Your task to perform on an android device: Clear the shopping cart on ebay.com. Search for lenovo thinkpad on ebay.com, select the first entry, and add it to the cart. Image 0: 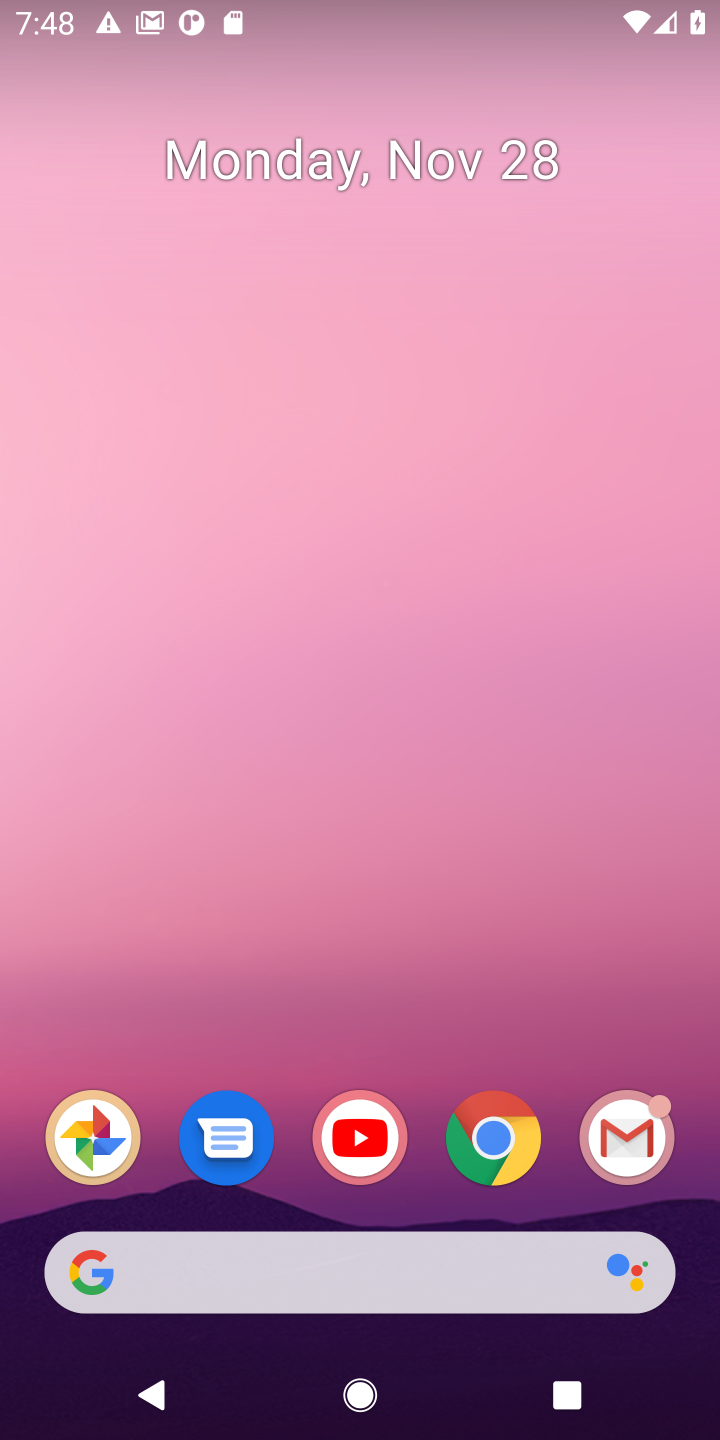
Step 0: click (515, 1134)
Your task to perform on an android device: Clear the shopping cart on ebay.com. Search for lenovo thinkpad on ebay.com, select the first entry, and add it to the cart. Image 1: 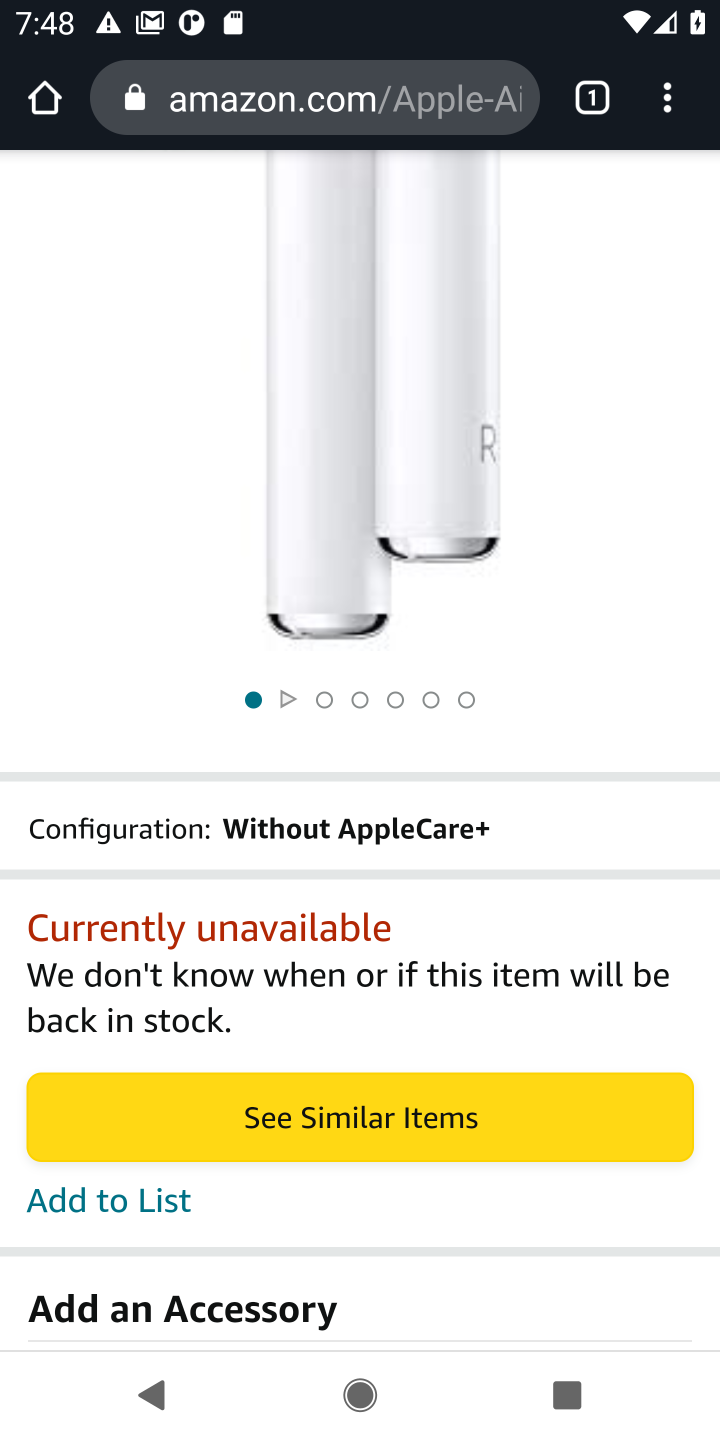
Step 1: click (293, 106)
Your task to perform on an android device: Clear the shopping cart on ebay.com. Search for lenovo thinkpad on ebay.com, select the first entry, and add it to the cart. Image 2: 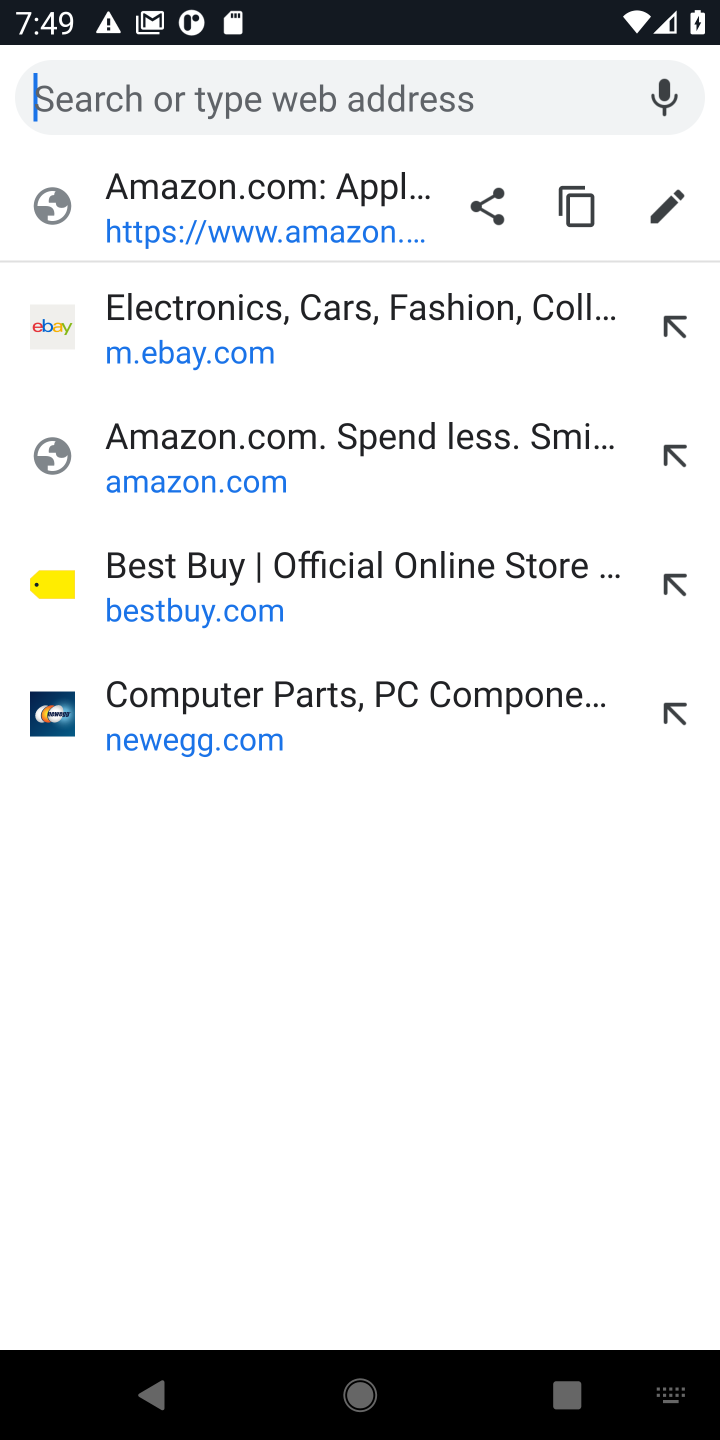
Step 2: click (146, 327)
Your task to perform on an android device: Clear the shopping cart on ebay.com. Search for lenovo thinkpad on ebay.com, select the first entry, and add it to the cart. Image 3: 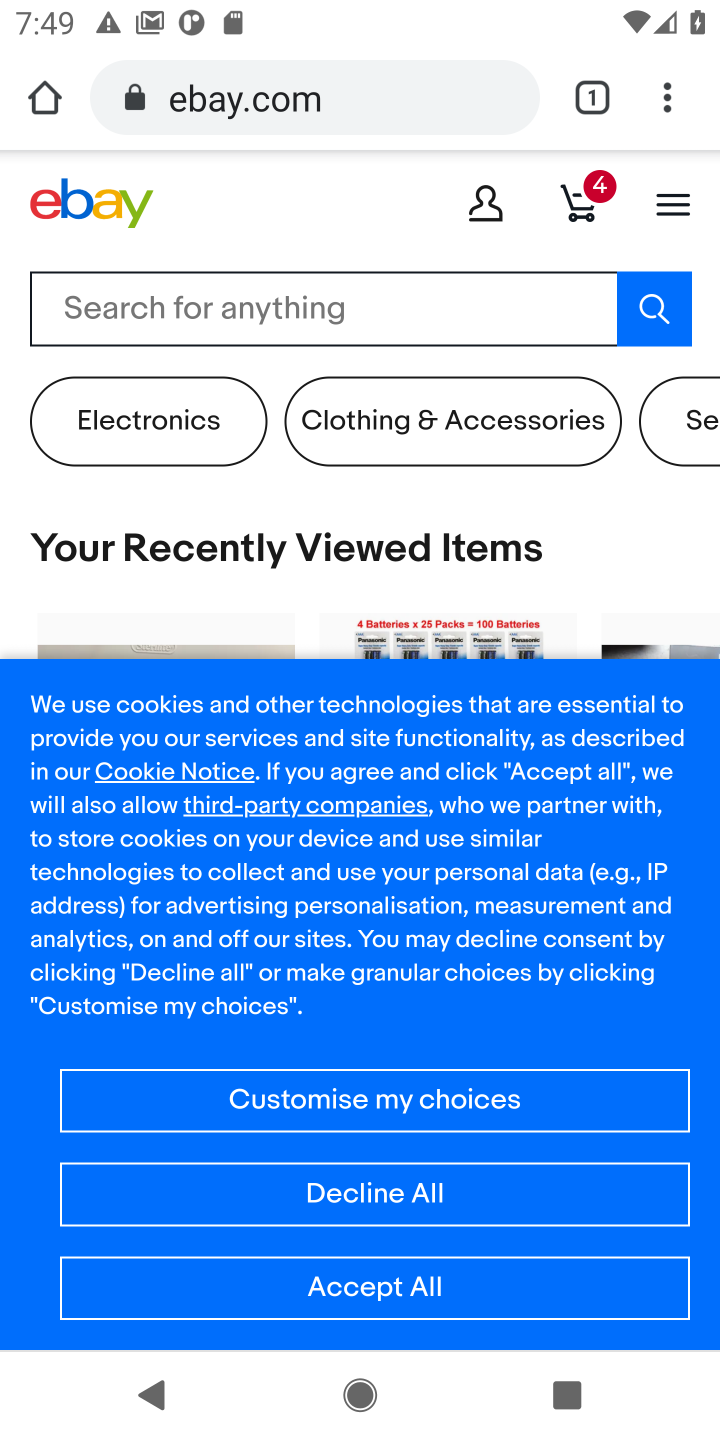
Step 3: click (577, 205)
Your task to perform on an android device: Clear the shopping cart on ebay.com. Search for lenovo thinkpad on ebay.com, select the first entry, and add it to the cart. Image 4: 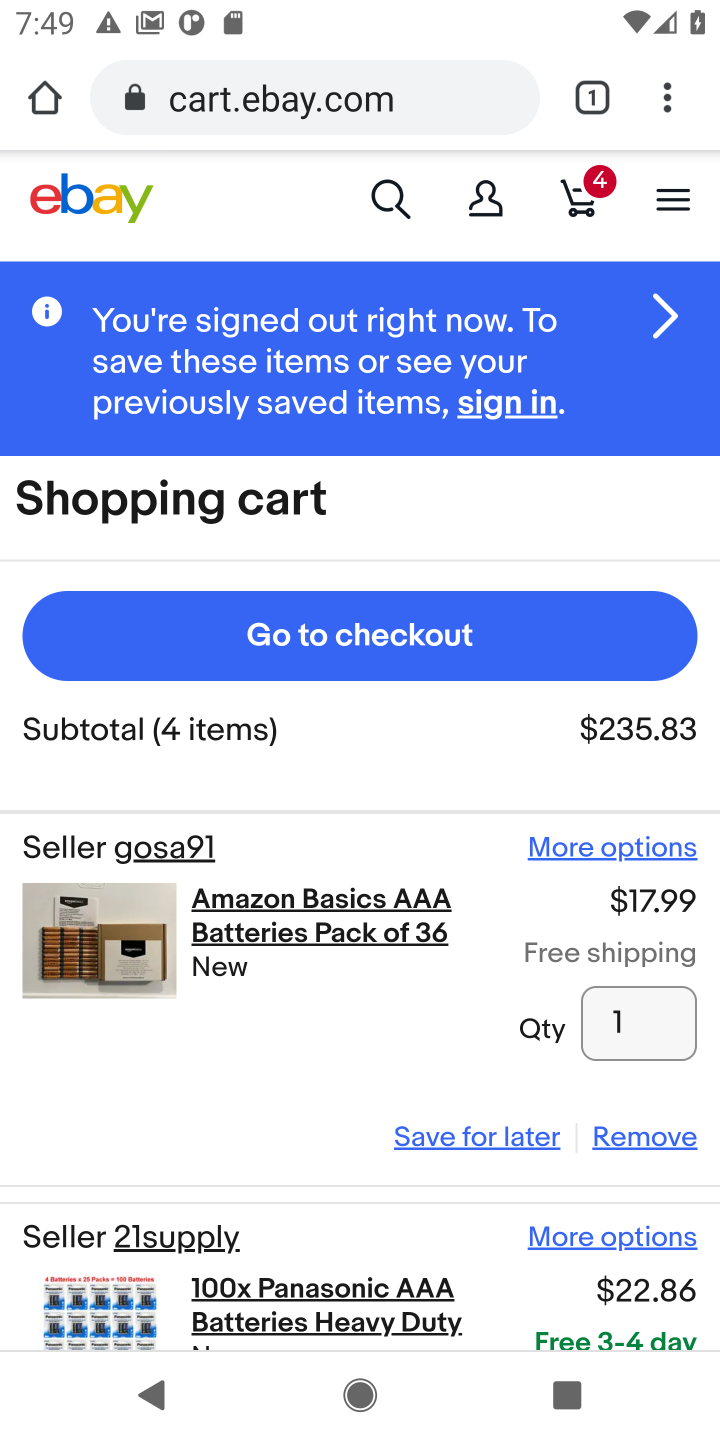
Step 4: click (620, 1139)
Your task to perform on an android device: Clear the shopping cart on ebay.com. Search for lenovo thinkpad on ebay.com, select the first entry, and add it to the cart. Image 5: 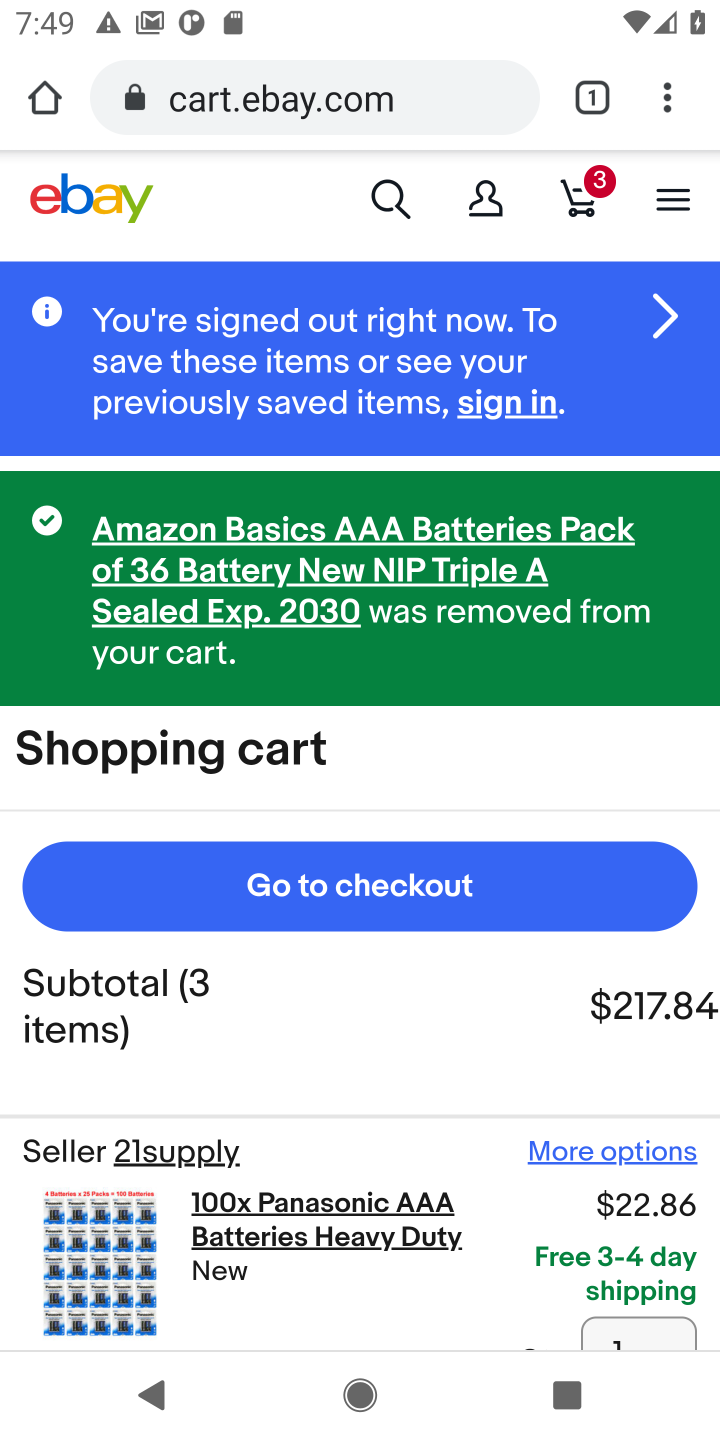
Step 5: drag from (529, 1192) to (485, 829)
Your task to perform on an android device: Clear the shopping cart on ebay.com. Search for lenovo thinkpad on ebay.com, select the first entry, and add it to the cart. Image 6: 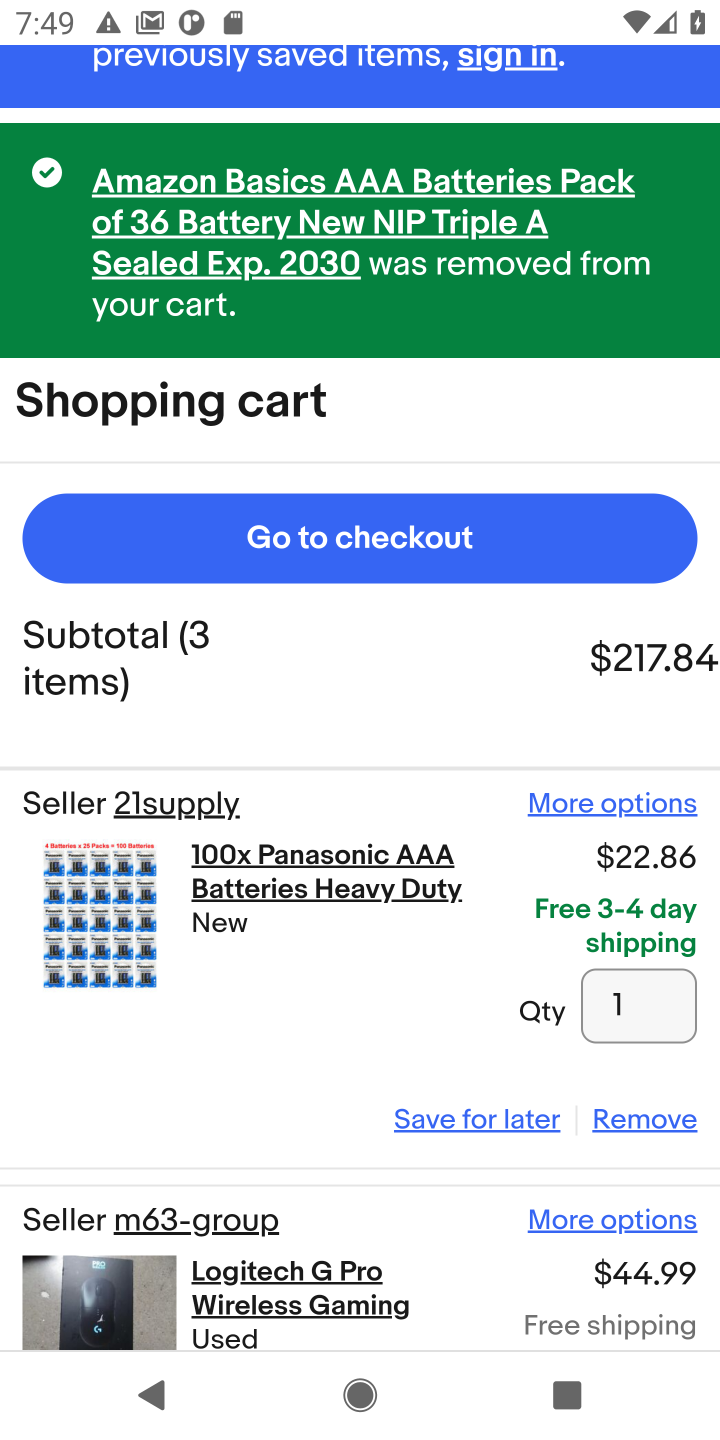
Step 6: click (619, 1127)
Your task to perform on an android device: Clear the shopping cart on ebay.com. Search for lenovo thinkpad on ebay.com, select the first entry, and add it to the cart. Image 7: 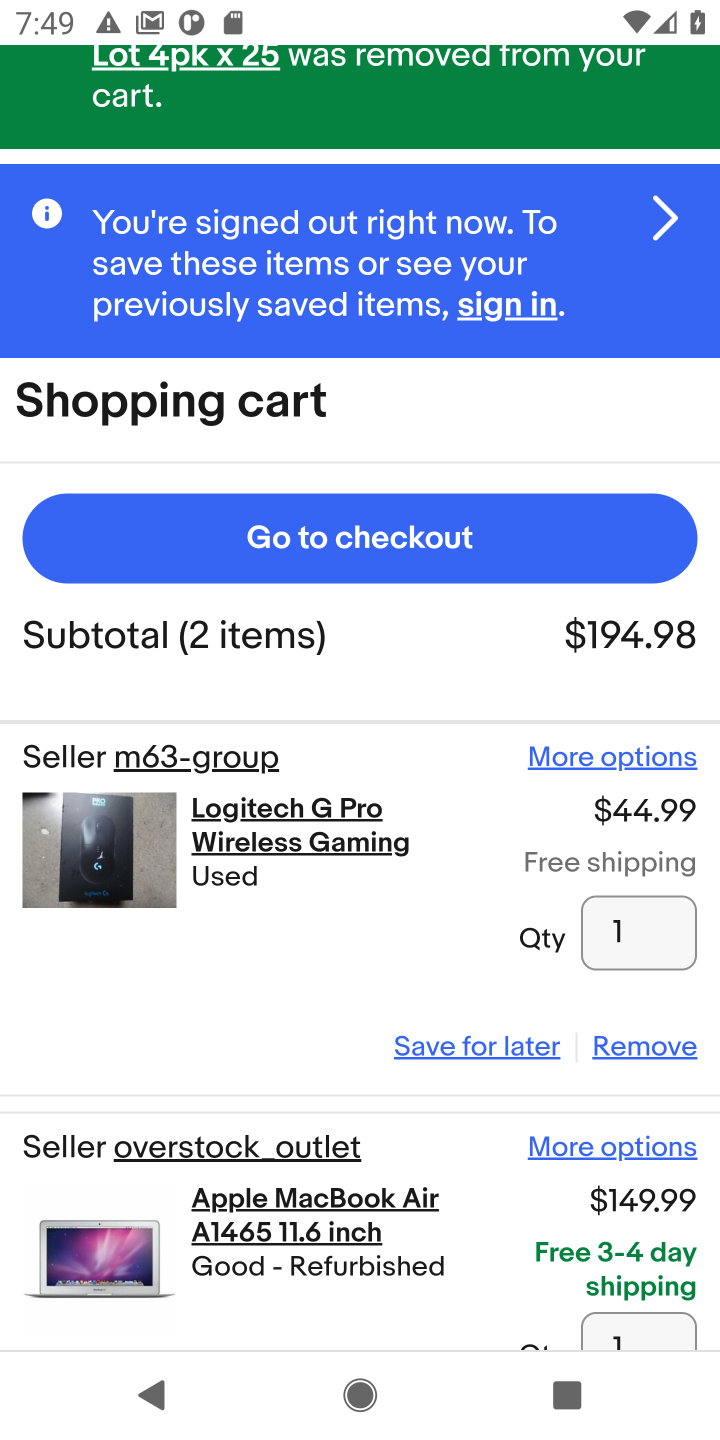
Step 7: click (605, 1066)
Your task to perform on an android device: Clear the shopping cart on ebay.com. Search for lenovo thinkpad on ebay.com, select the first entry, and add it to the cart. Image 8: 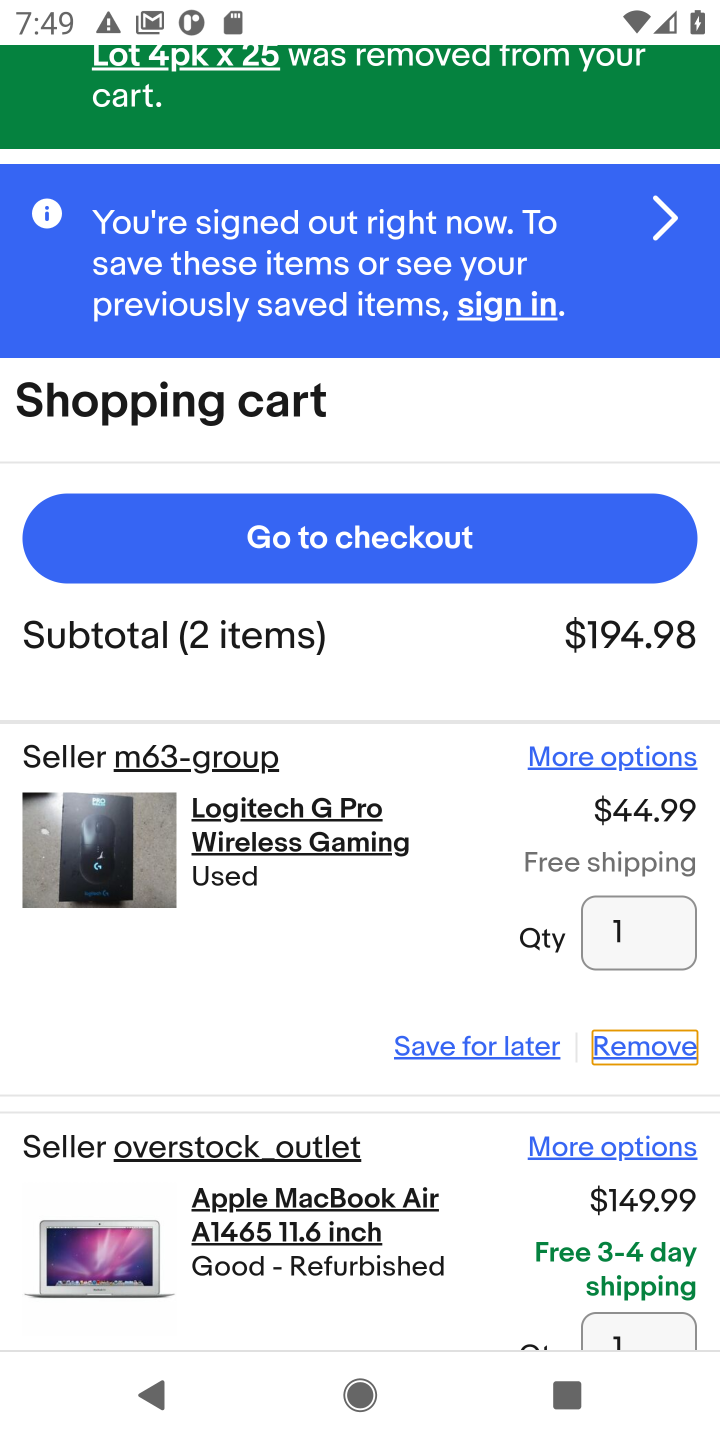
Step 8: click (624, 1058)
Your task to perform on an android device: Clear the shopping cart on ebay.com. Search for lenovo thinkpad on ebay.com, select the first entry, and add it to the cart. Image 9: 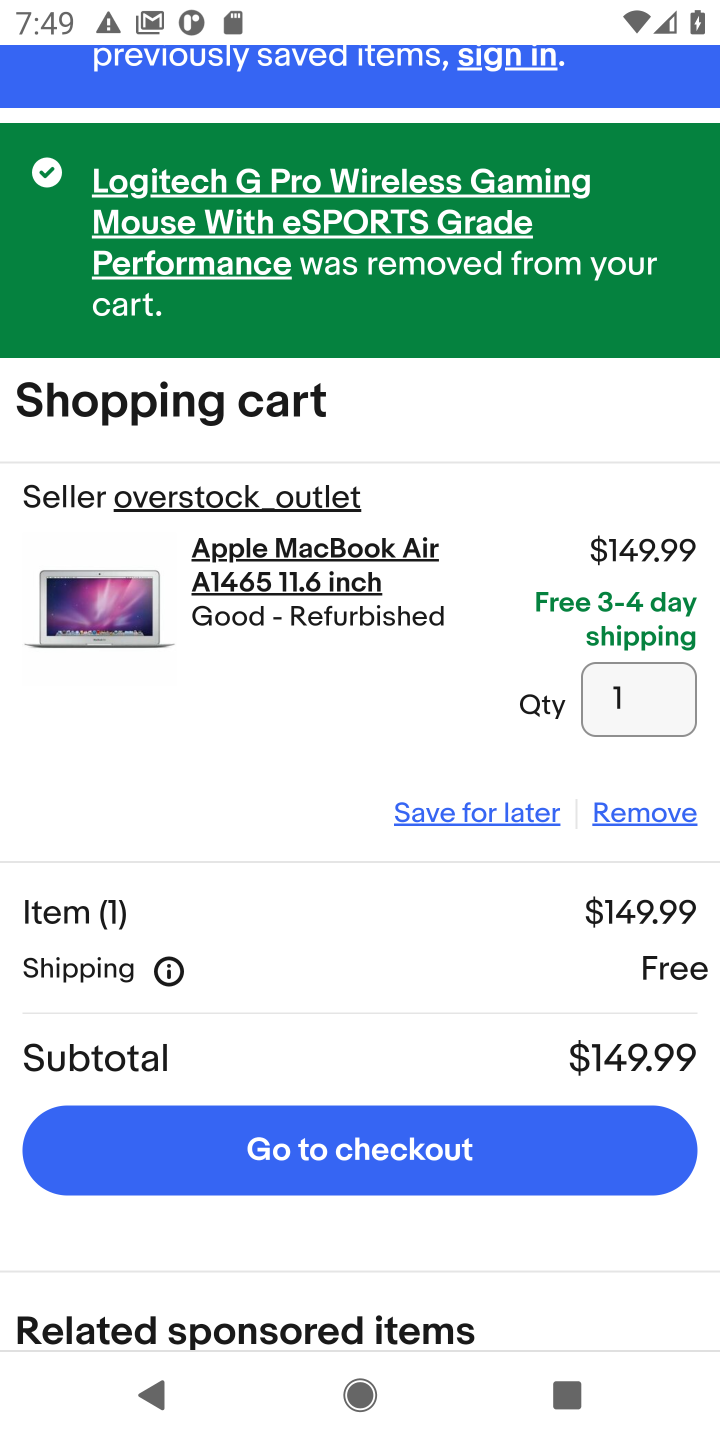
Step 9: click (634, 819)
Your task to perform on an android device: Clear the shopping cart on ebay.com. Search for lenovo thinkpad on ebay.com, select the first entry, and add it to the cart. Image 10: 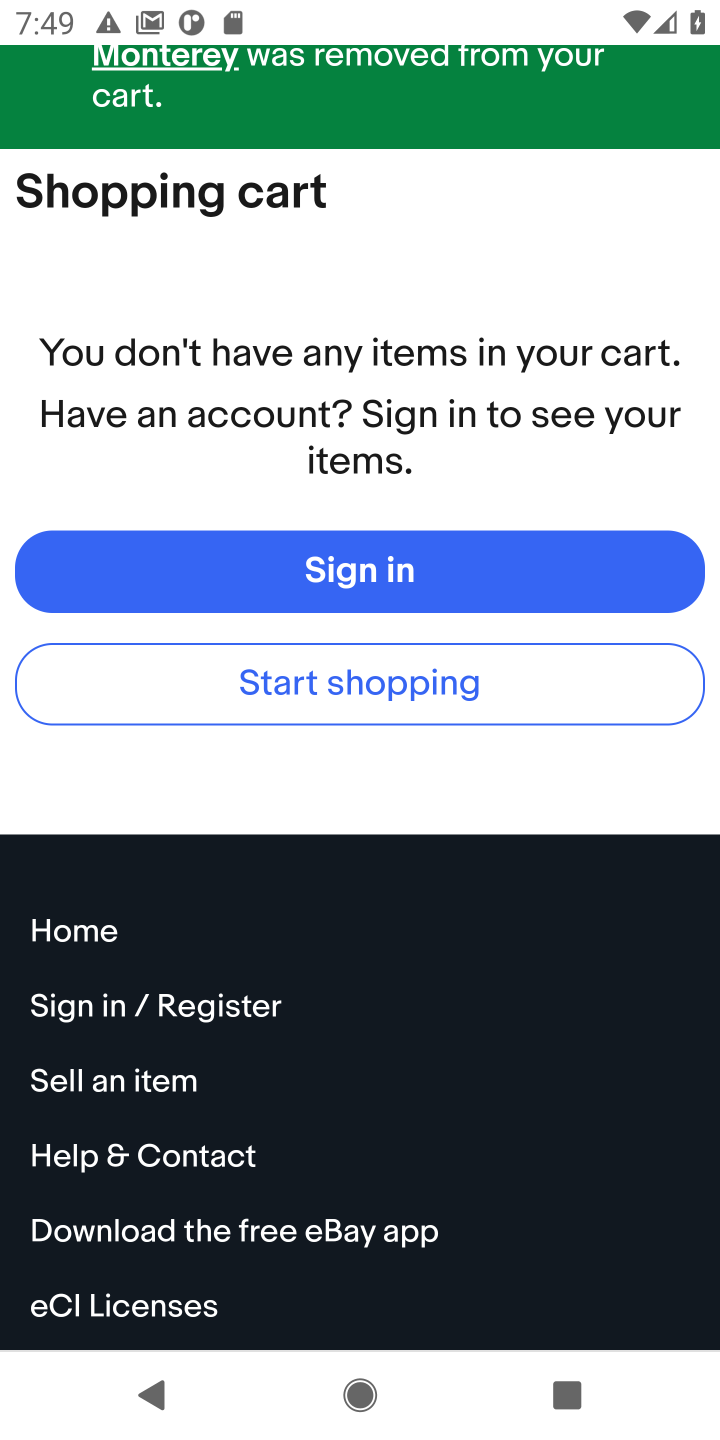
Step 10: drag from (492, 258) to (503, 693)
Your task to perform on an android device: Clear the shopping cart on ebay.com. Search for lenovo thinkpad on ebay.com, select the first entry, and add it to the cart. Image 11: 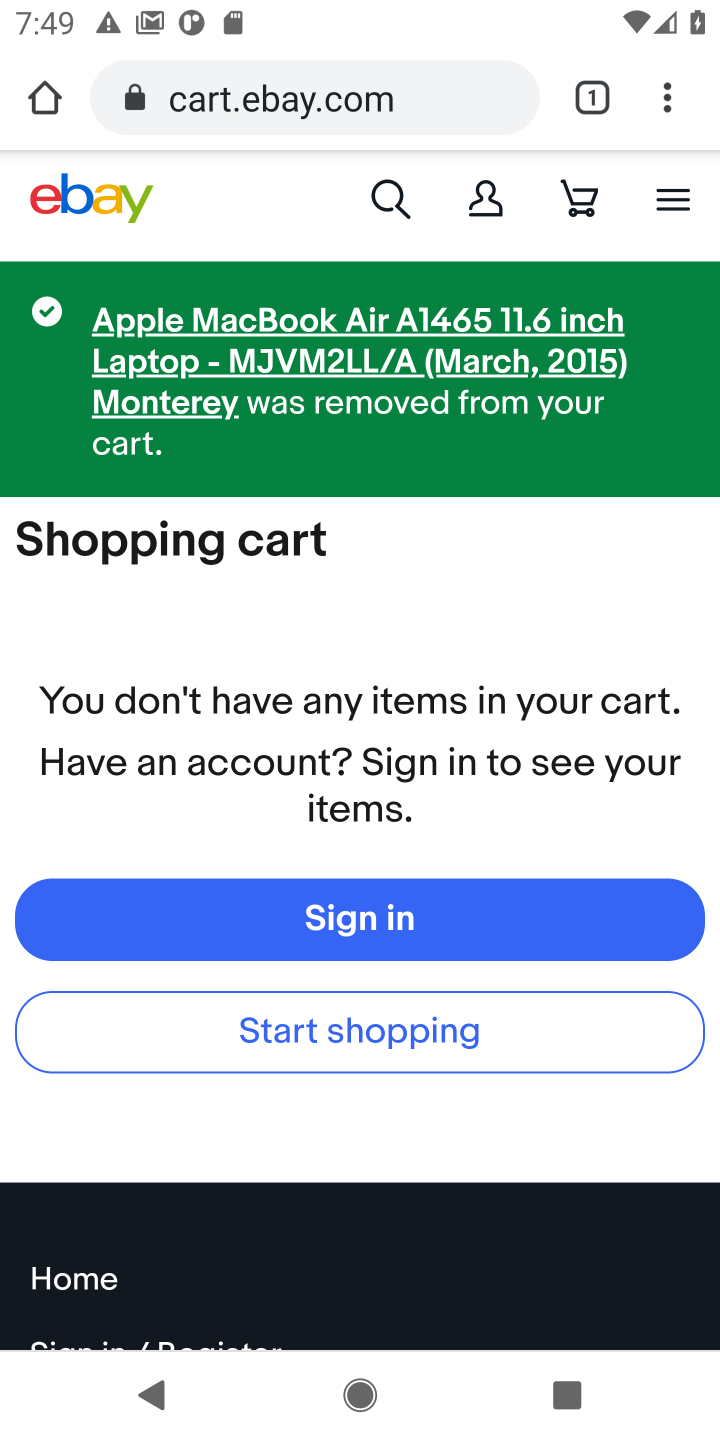
Step 11: click (394, 201)
Your task to perform on an android device: Clear the shopping cart on ebay.com. Search for lenovo thinkpad on ebay.com, select the first entry, and add it to the cart. Image 12: 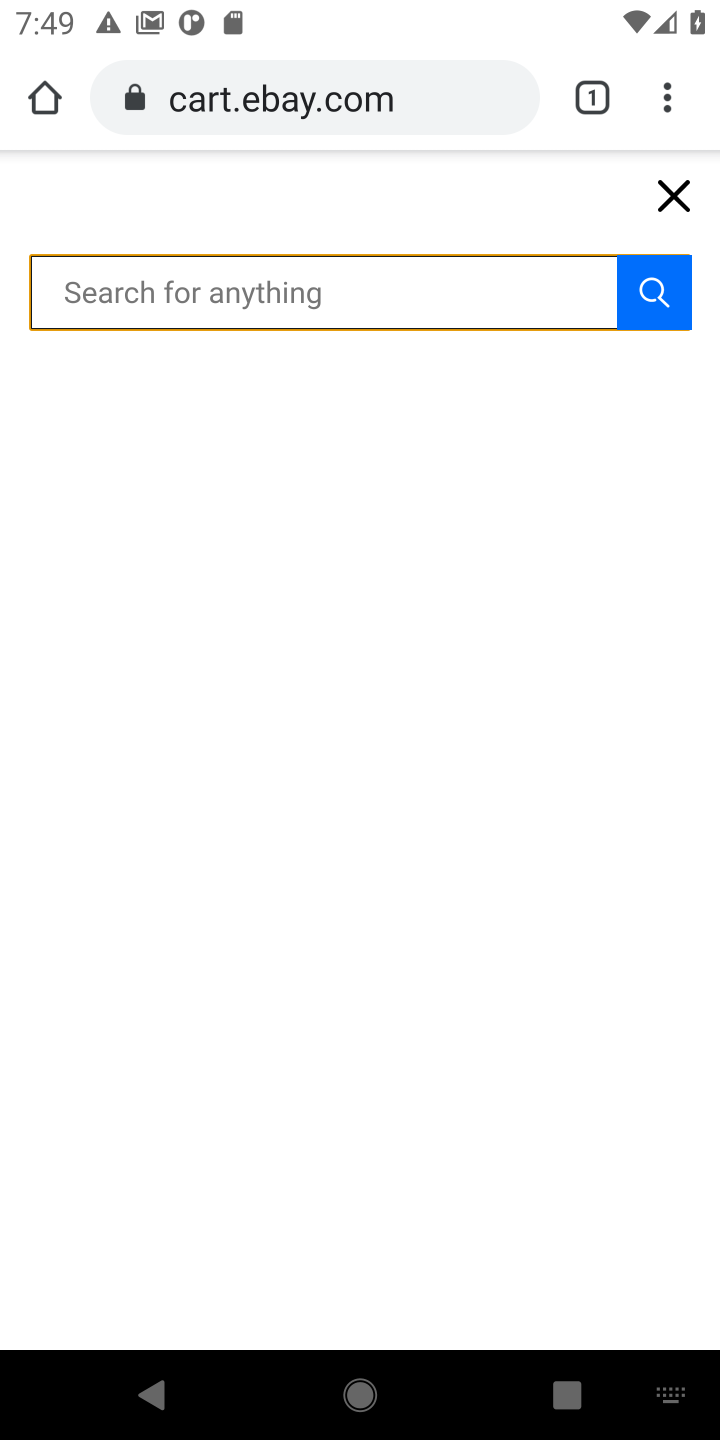
Step 12: type " lenovo thinkpad "
Your task to perform on an android device: Clear the shopping cart on ebay.com. Search for lenovo thinkpad on ebay.com, select the first entry, and add it to the cart. Image 13: 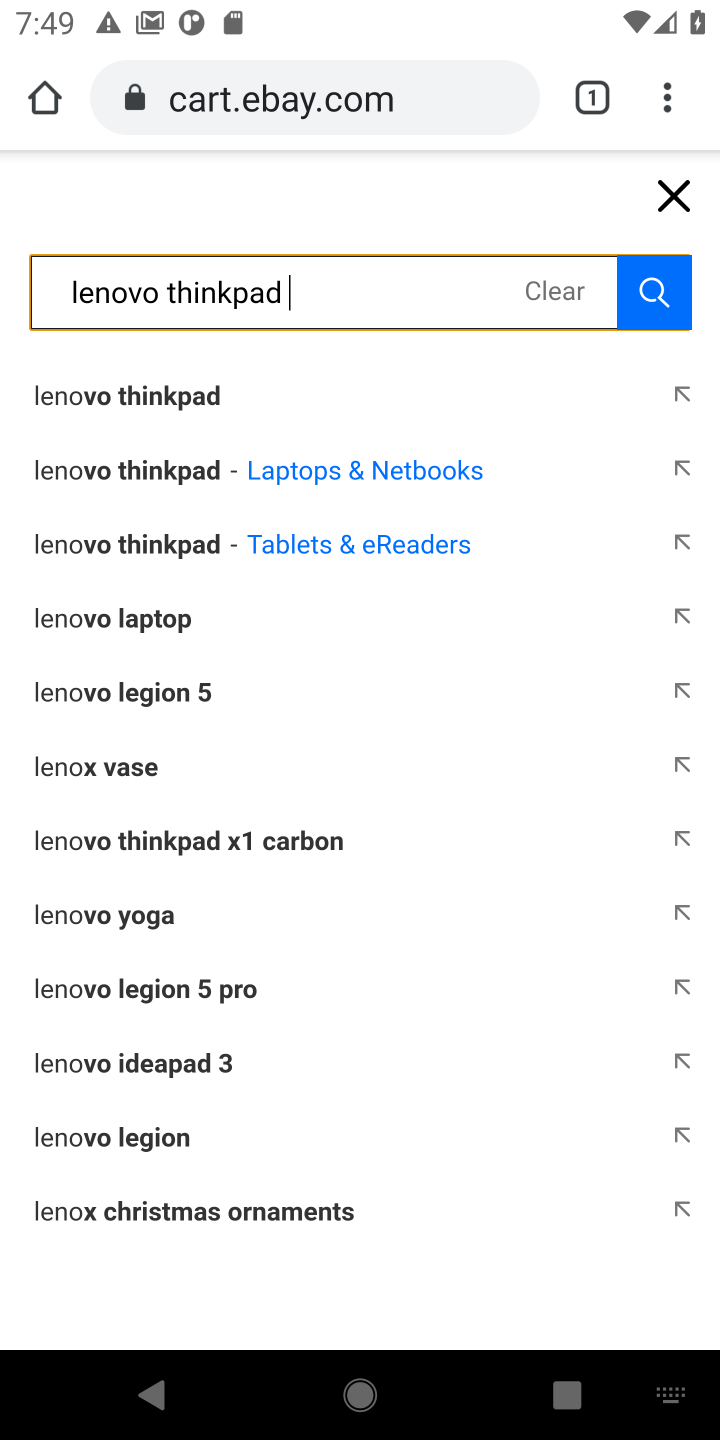
Step 13: click (121, 408)
Your task to perform on an android device: Clear the shopping cart on ebay.com. Search for lenovo thinkpad on ebay.com, select the first entry, and add it to the cart. Image 14: 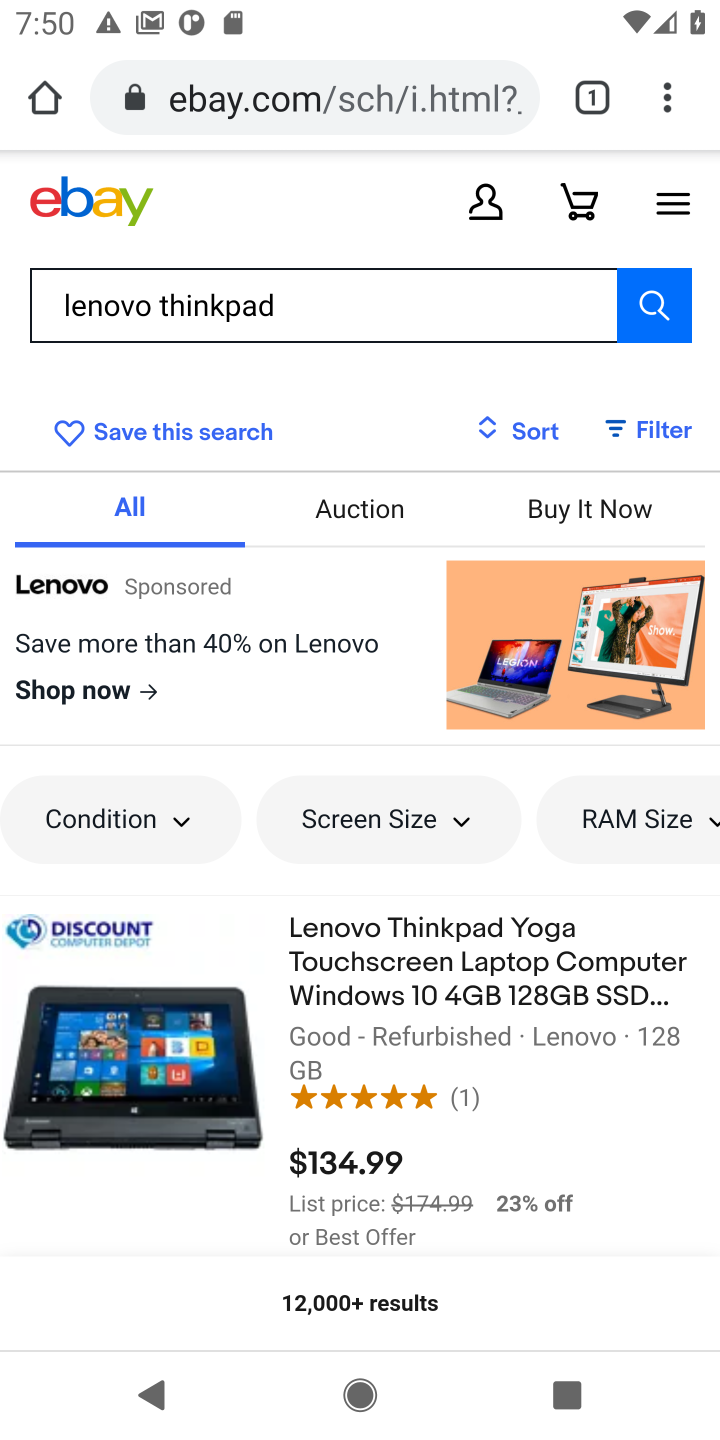
Step 14: click (542, 974)
Your task to perform on an android device: Clear the shopping cart on ebay.com. Search for lenovo thinkpad on ebay.com, select the first entry, and add it to the cart. Image 15: 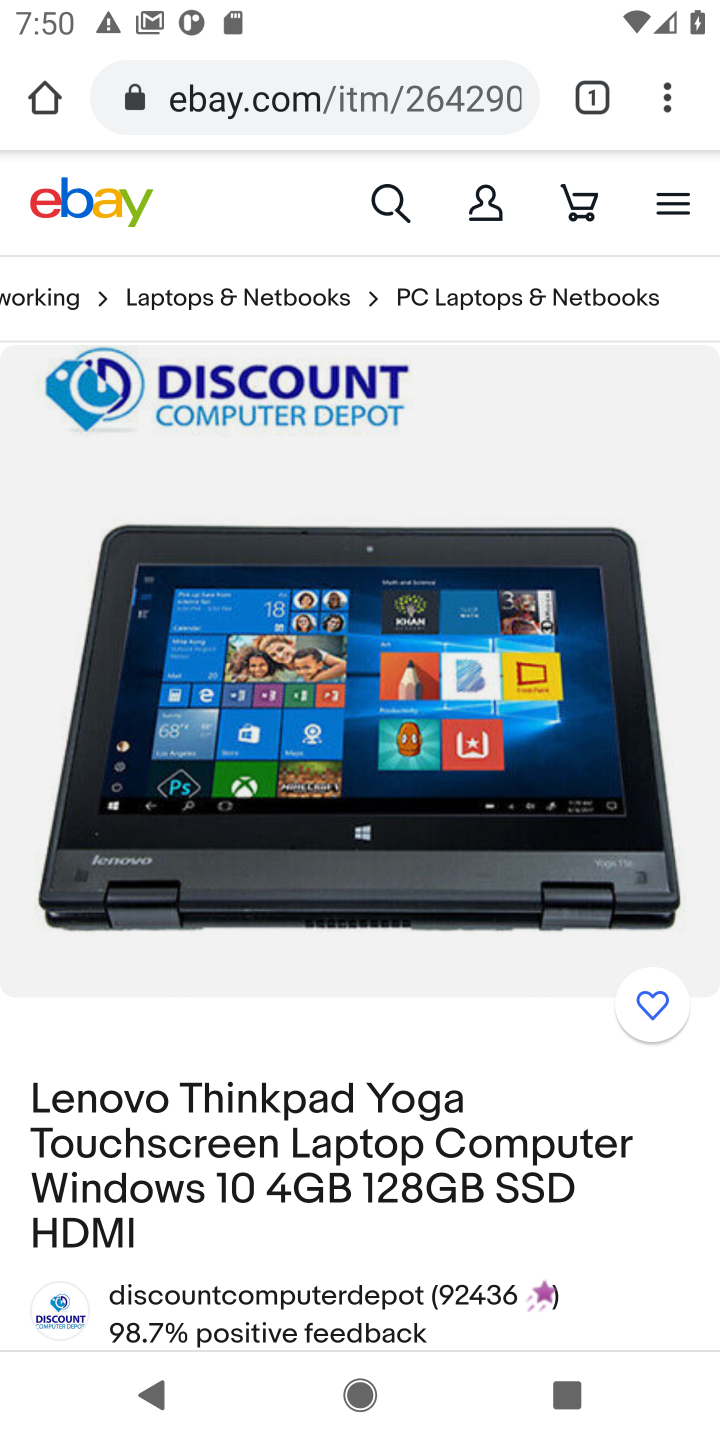
Step 15: drag from (487, 1082) to (507, 610)
Your task to perform on an android device: Clear the shopping cart on ebay.com. Search for lenovo thinkpad on ebay.com, select the first entry, and add it to the cart. Image 16: 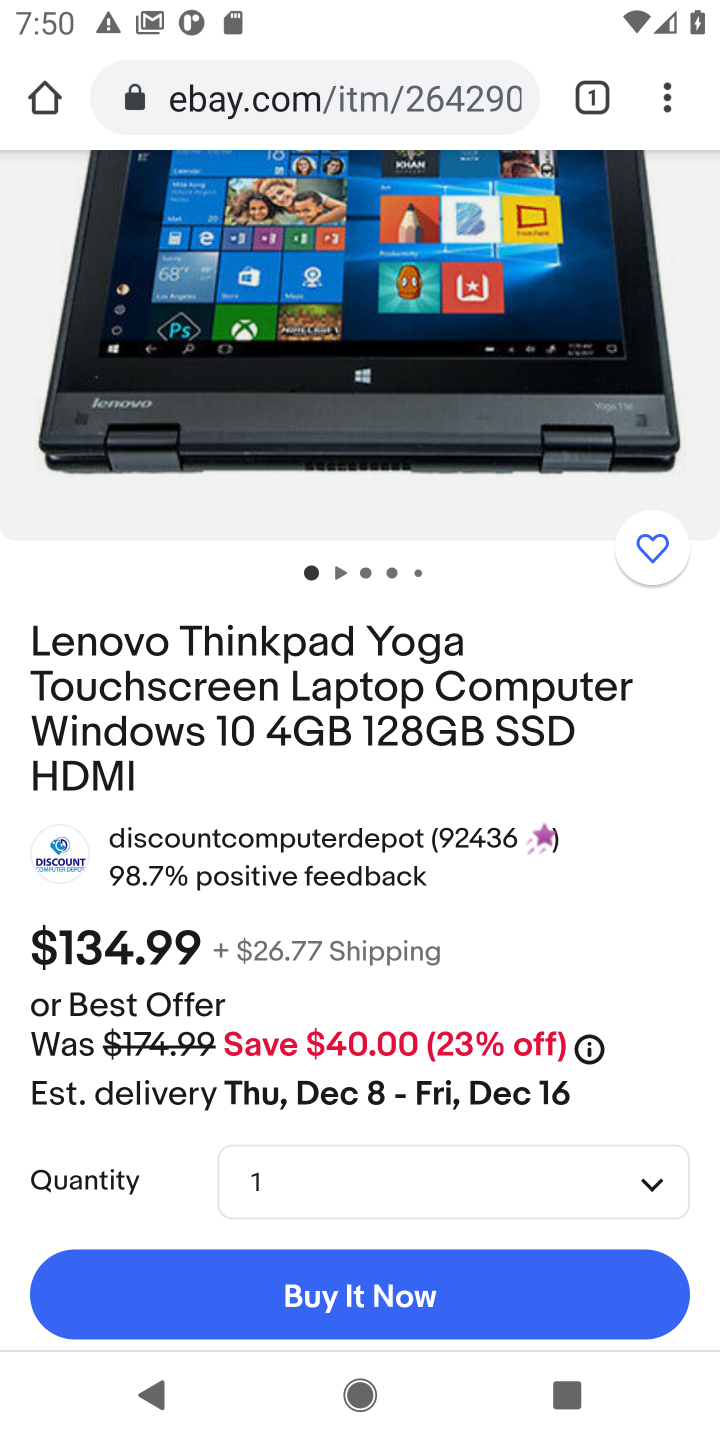
Step 16: drag from (482, 969) to (453, 662)
Your task to perform on an android device: Clear the shopping cart on ebay.com. Search for lenovo thinkpad on ebay.com, select the first entry, and add it to the cart. Image 17: 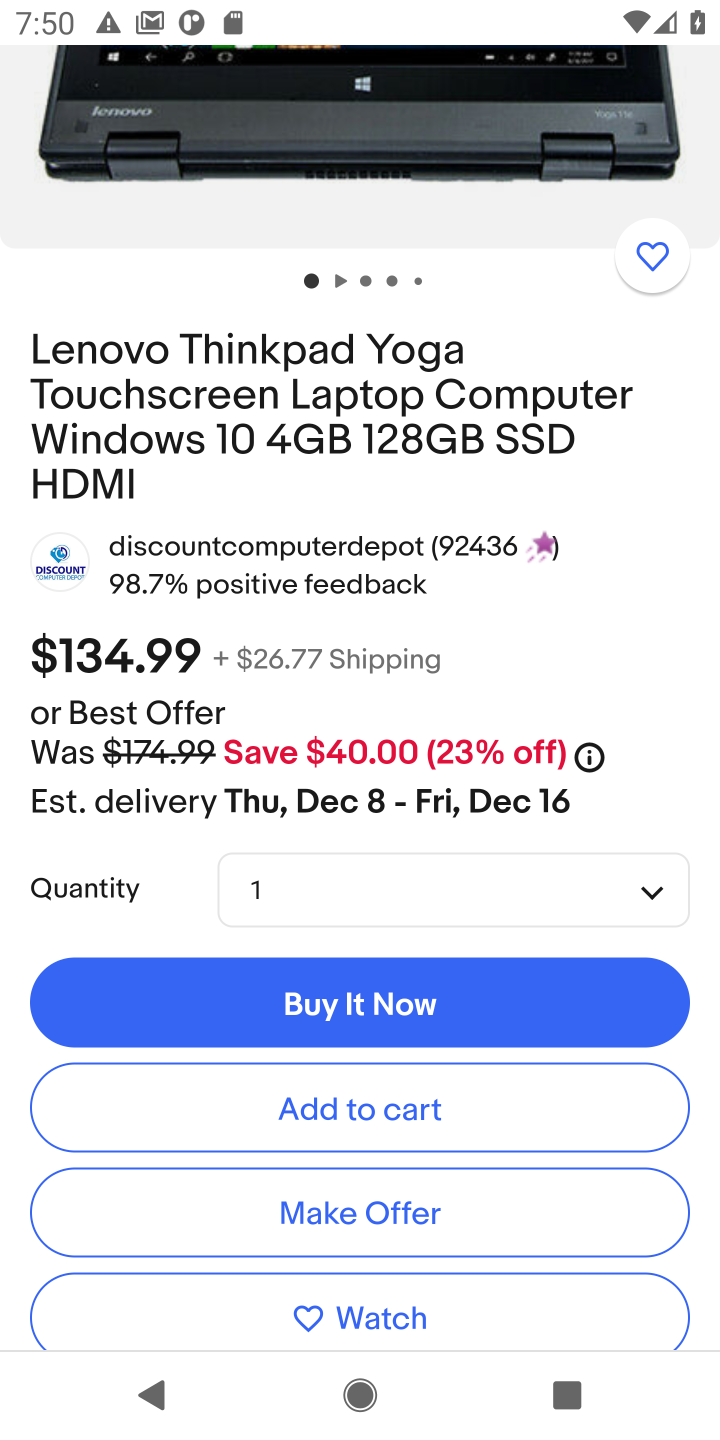
Step 17: click (321, 1108)
Your task to perform on an android device: Clear the shopping cart on ebay.com. Search for lenovo thinkpad on ebay.com, select the first entry, and add it to the cart. Image 18: 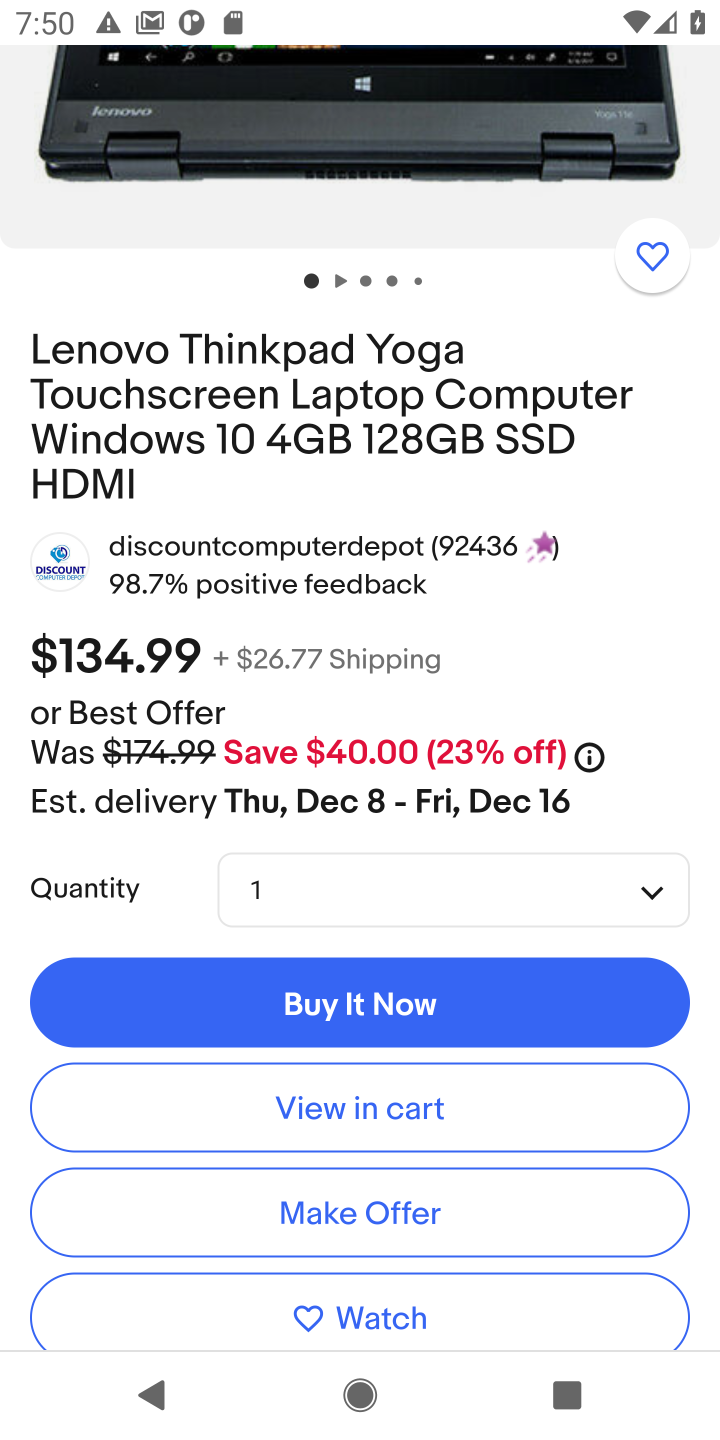
Step 18: task complete